Your task to perform on an android device: Go to wifi settings Image 0: 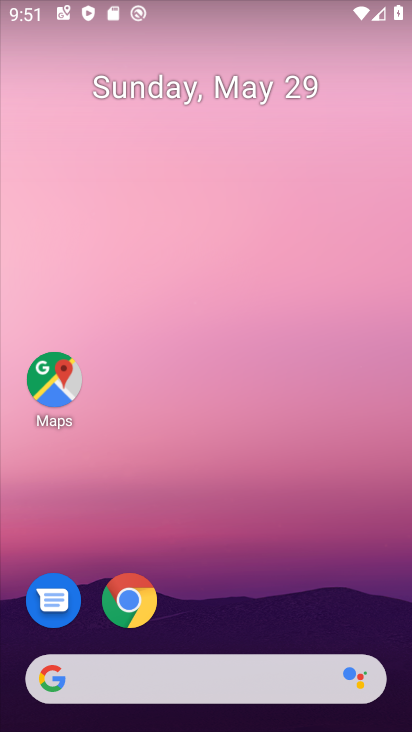
Step 0: click (130, 610)
Your task to perform on an android device: Go to wifi settings Image 1: 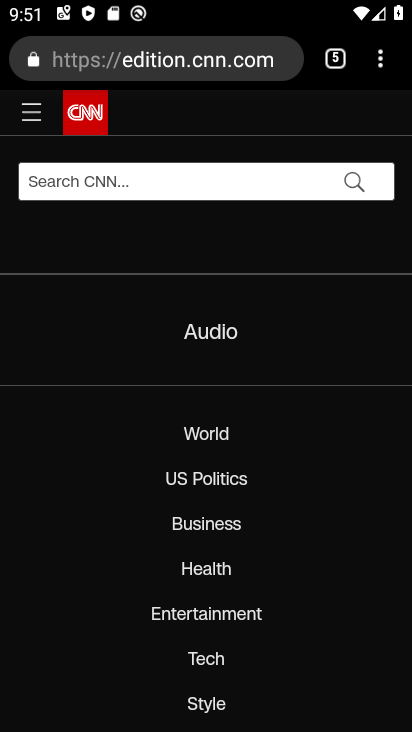
Step 1: press home button
Your task to perform on an android device: Go to wifi settings Image 2: 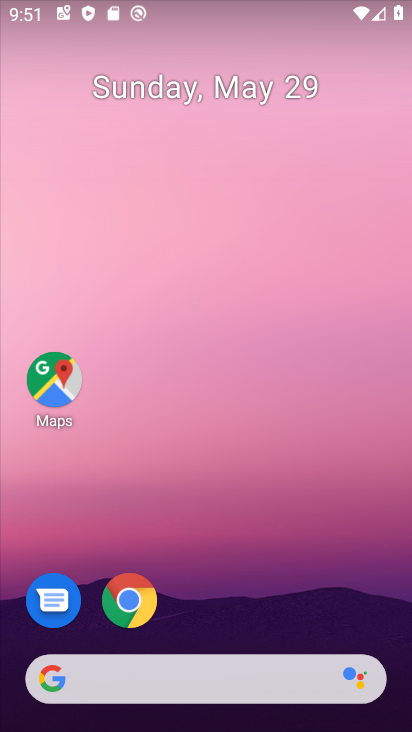
Step 2: drag from (202, 725) to (150, 110)
Your task to perform on an android device: Go to wifi settings Image 3: 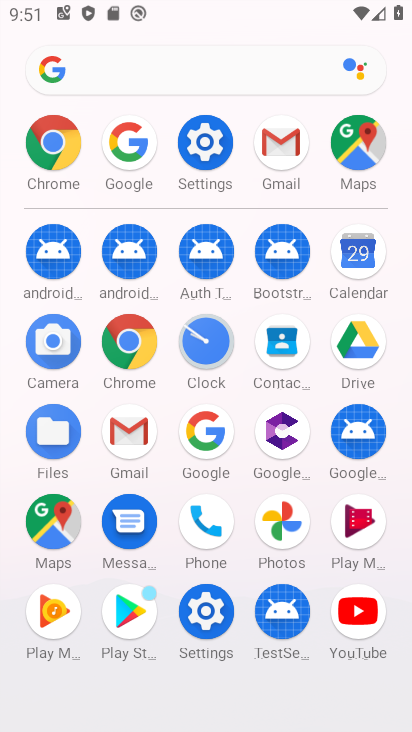
Step 3: click (205, 139)
Your task to perform on an android device: Go to wifi settings Image 4: 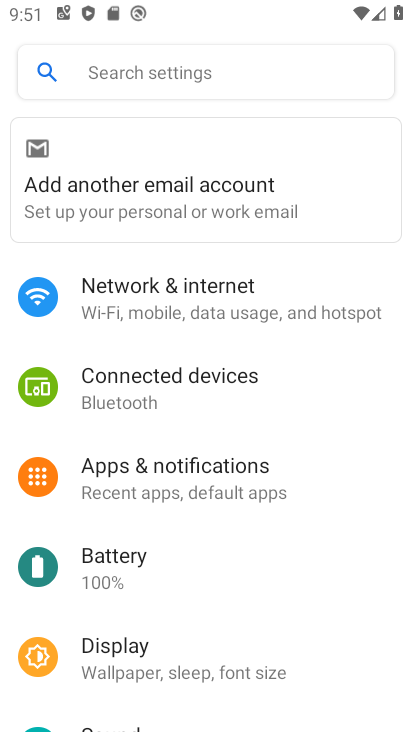
Step 4: click (159, 292)
Your task to perform on an android device: Go to wifi settings Image 5: 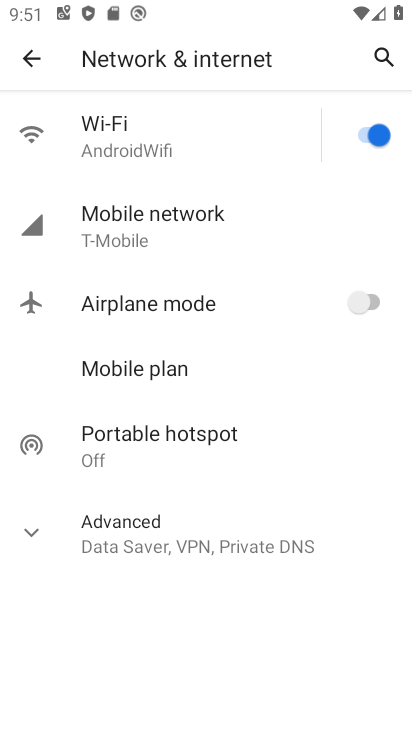
Step 5: click (127, 140)
Your task to perform on an android device: Go to wifi settings Image 6: 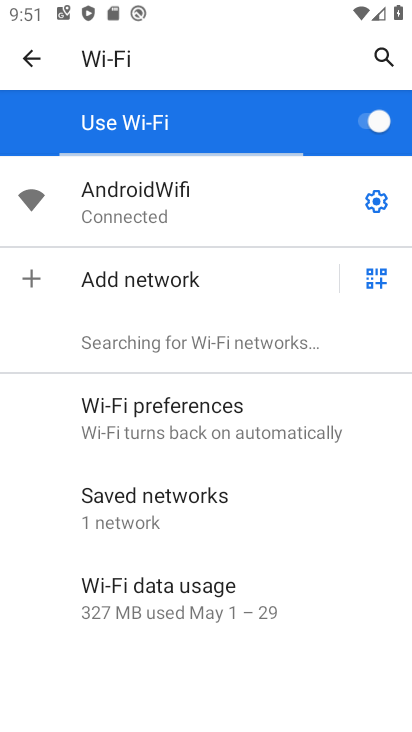
Step 6: task complete